Your task to perform on an android device: Open calendar and show me the third week of next month Image 0: 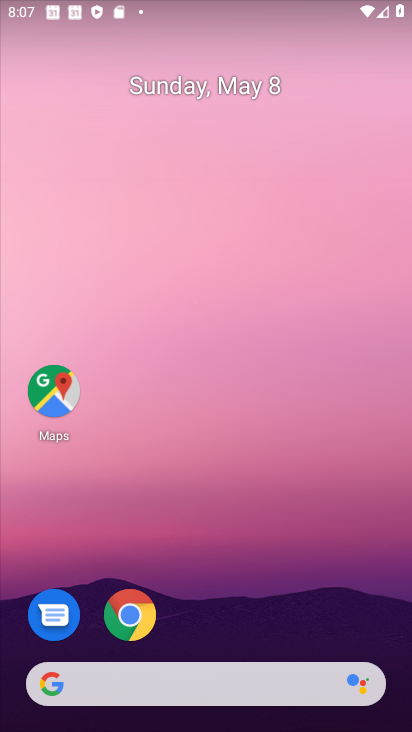
Step 0: drag from (216, 631) to (182, 197)
Your task to perform on an android device: Open calendar and show me the third week of next month Image 1: 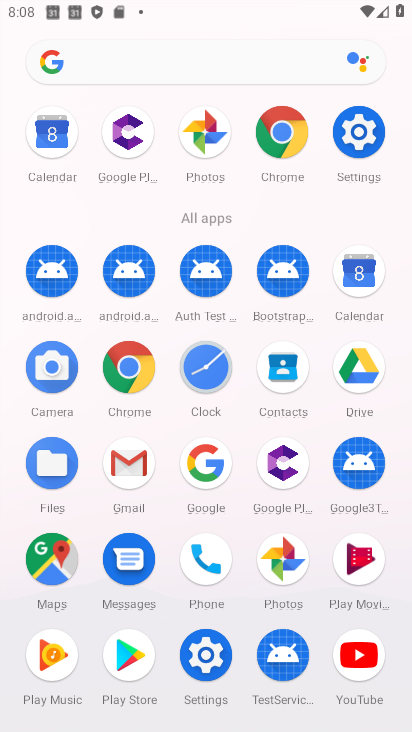
Step 1: click (372, 288)
Your task to perform on an android device: Open calendar and show me the third week of next month Image 2: 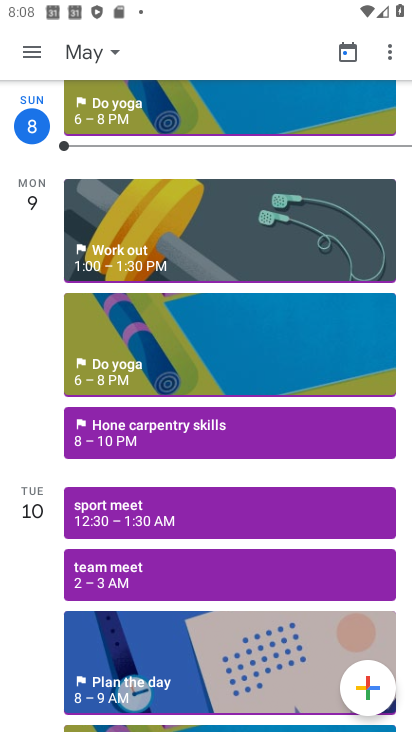
Step 2: click (23, 67)
Your task to perform on an android device: Open calendar and show me the third week of next month Image 3: 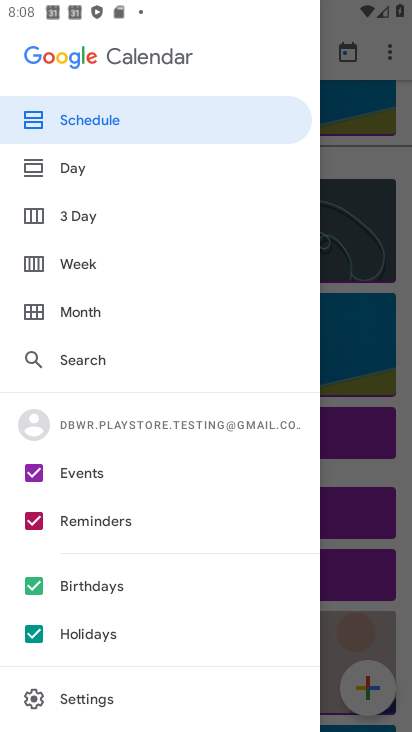
Step 3: click (111, 263)
Your task to perform on an android device: Open calendar and show me the third week of next month Image 4: 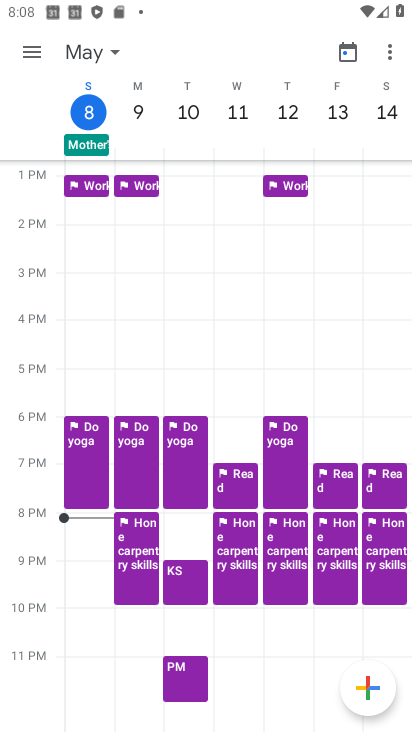
Step 4: click (100, 62)
Your task to perform on an android device: Open calendar and show me the third week of next month Image 5: 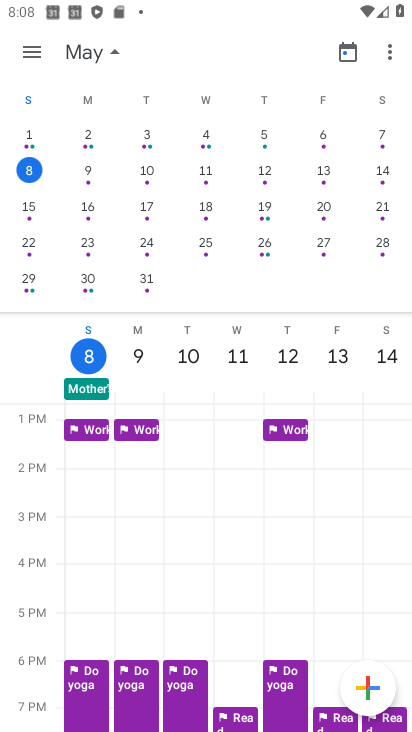
Step 5: drag from (386, 223) to (67, 242)
Your task to perform on an android device: Open calendar and show me the third week of next month Image 6: 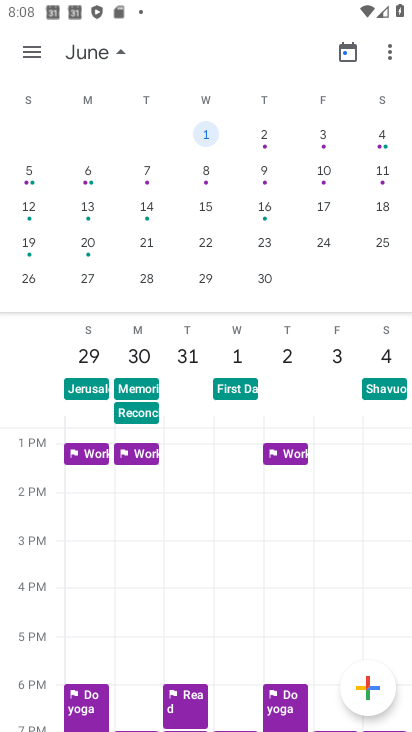
Step 6: click (203, 207)
Your task to perform on an android device: Open calendar and show me the third week of next month Image 7: 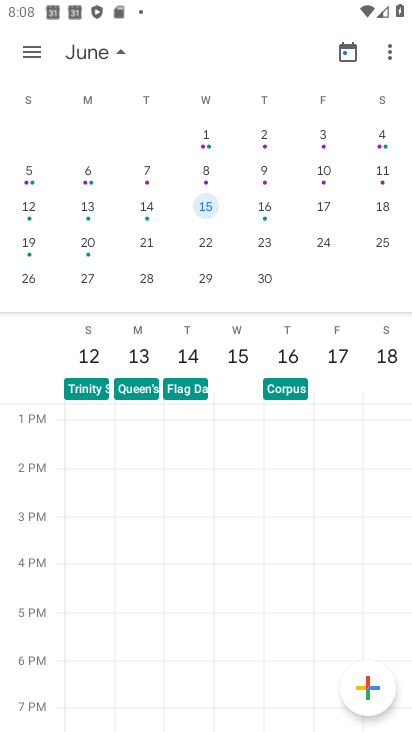
Step 7: task complete